Your task to perform on an android device: Open accessibility settings Image 0: 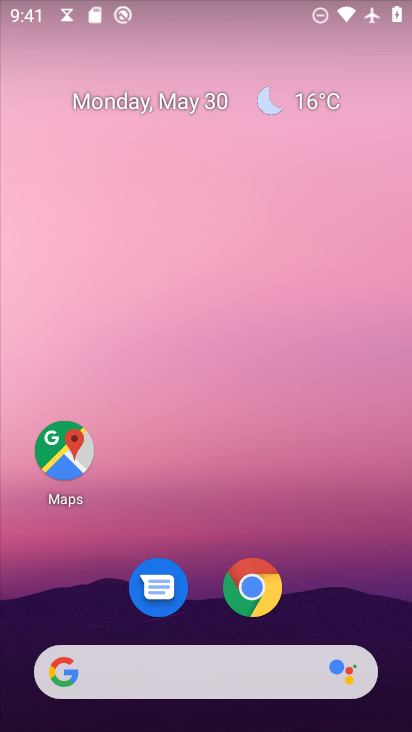
Step 0: drag from (235, 663) to (325, 18)
Your task to perform on an android device: Open accessibility settings Image 1: 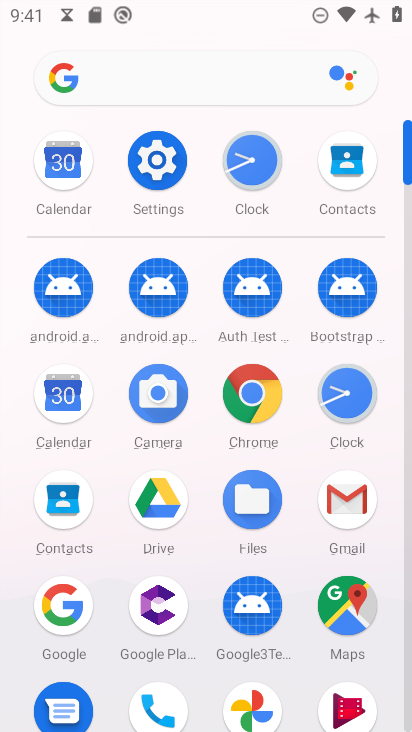
Step 1: click (169, 170)
Your task to perform on an android device: Open accessibility settings Image 2: 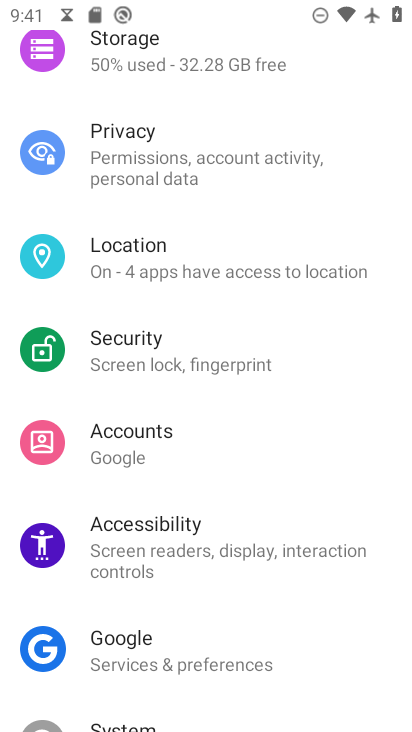
Step 2: click (172, 528)
Your task to perform on an android device: Open accessibility settings Image 3: 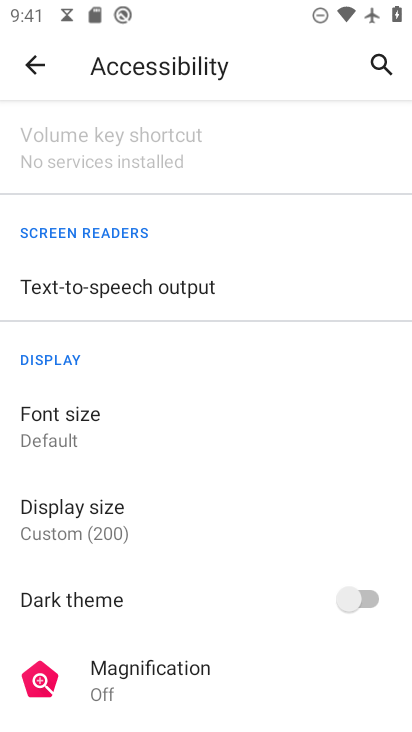
Step 3: task complete